Your task to perform on an android device: Open ESPN.com Image 0: 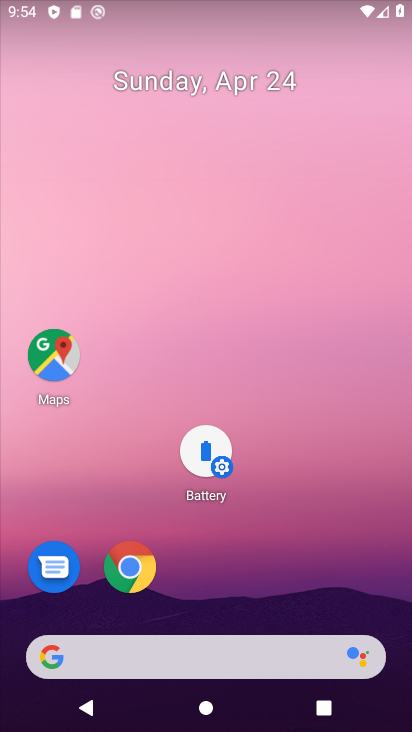
Step 0: click (130, 570)
Your task to perform on an android device: Open ESPN.com Image 1: 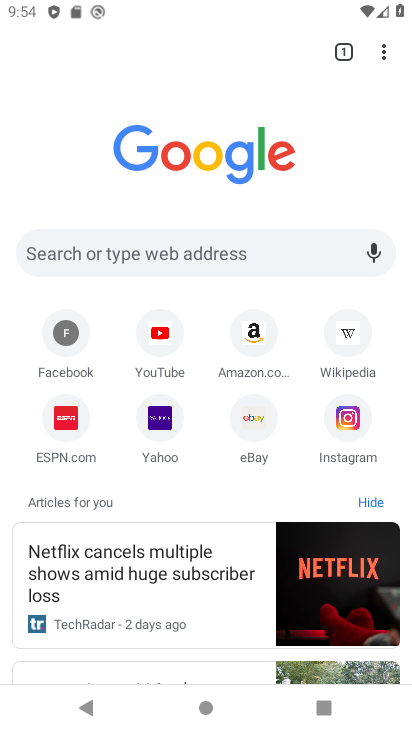
Step 1: click (70, 429)
Your task to perform on an android device: Open ESPN.com Image 2: 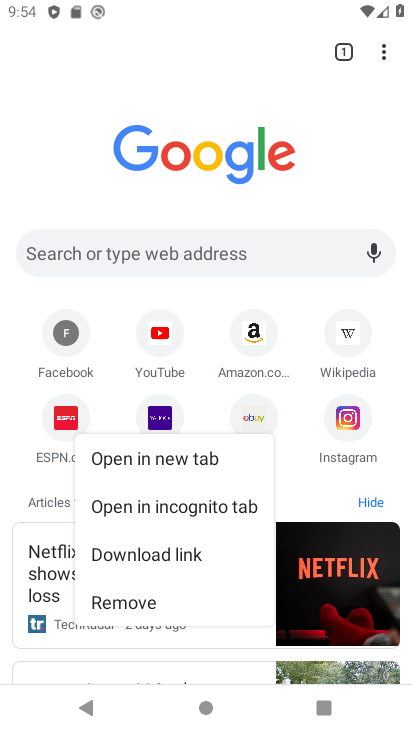
Step 2: click (76, 424)
Your task to perform on an android device: Open ESPN.com Image 3: 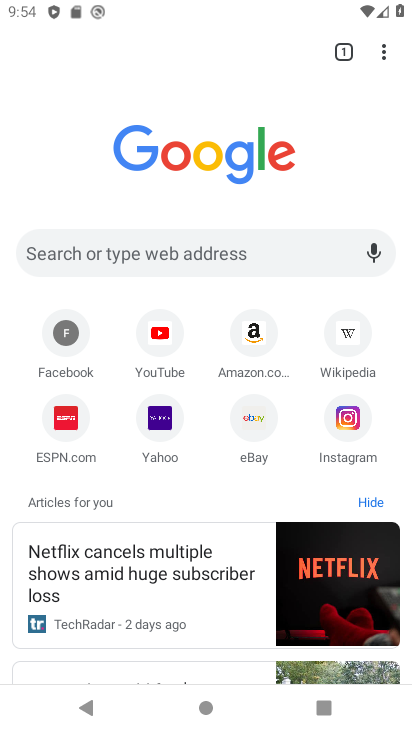
Step 3: click (65, 406)
Your task to perform on an android device: Open ESPN.com Image 4: 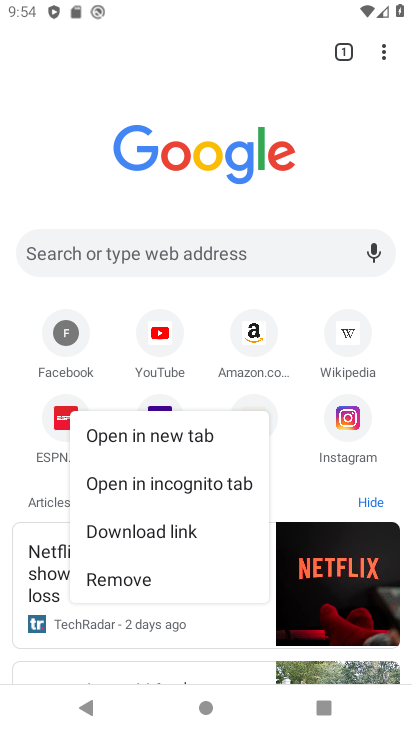
Step 4: click (61, 403)
Your task to perform on an android device: Open ESPN.com Image 5: 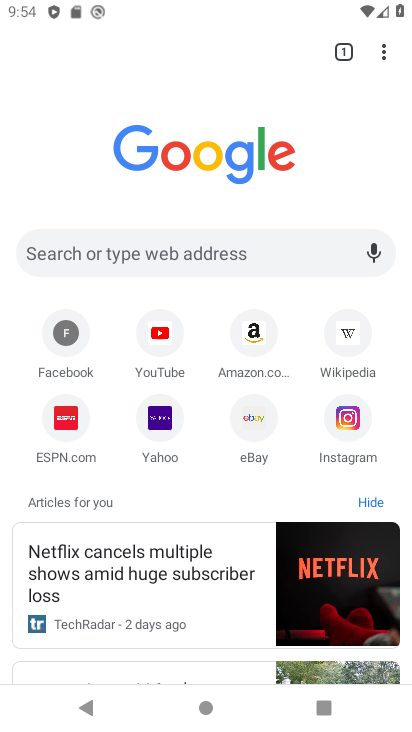
Step 5: click (51, 416)
Your task to perform on an android device: Open ESPN.com Image 6: 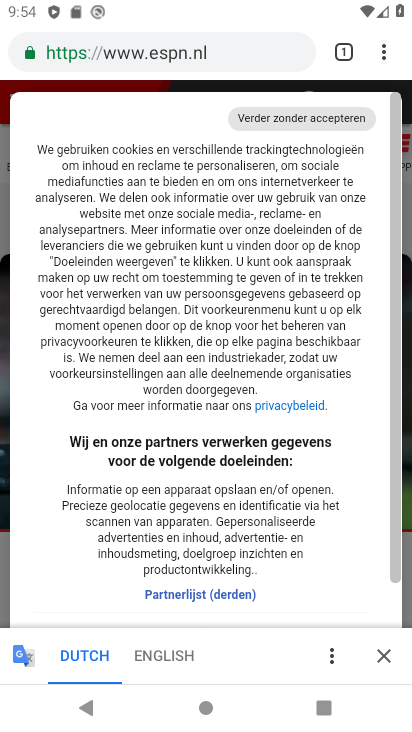
Step 6: task complete